Your task to perform on an android device: Add "razer deathadder" to the cart on bestbuy.com, then select checkout. Image 0: 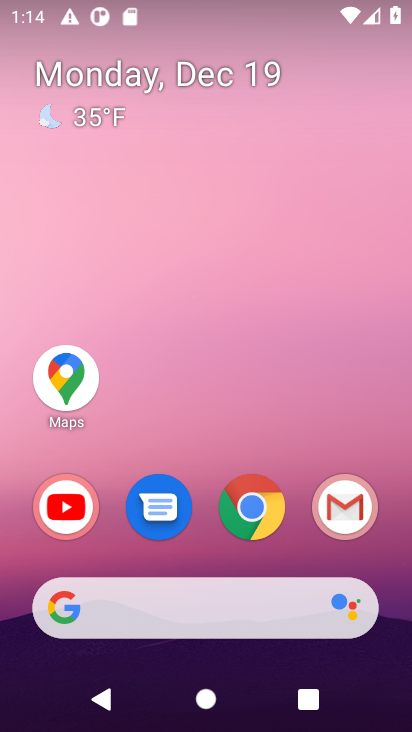
Step 0: click (251, 515)
Your task to perform on an android device: Add "razer deathadder" to the cart on bestbuy.com, then select checkout. Image 1: 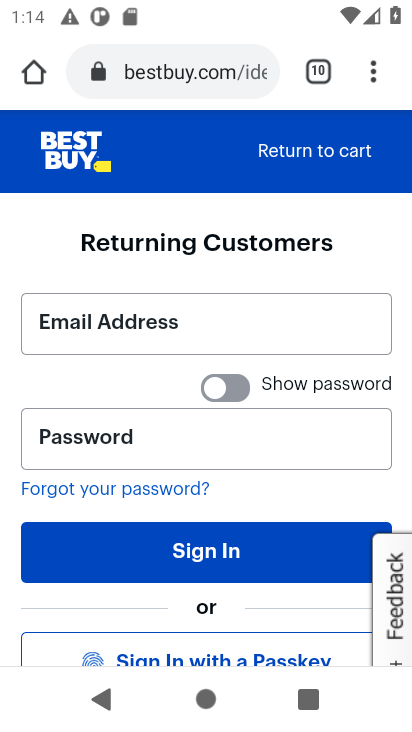
Step 1: click (193, 76)
Your task to perform on an android device: Add "razer deathadder" to the cart on bestbuy.com, then select checkout. Image 2: 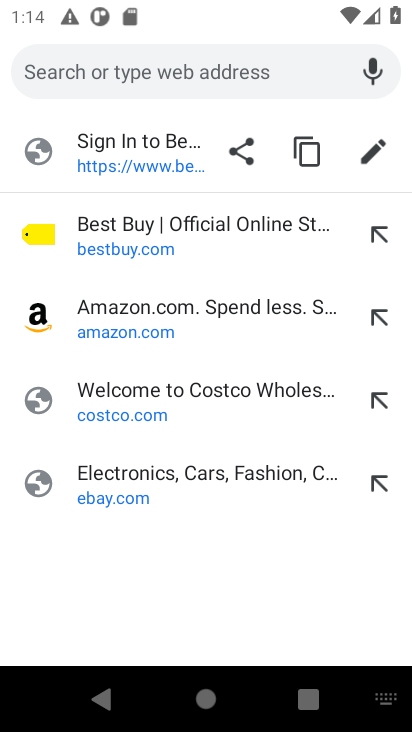
Step 2: click (111, 227)
Your task to perform on an android device: Add "razer deathadder" to the cart on bestbuy.com, then select checkout. Image 3: 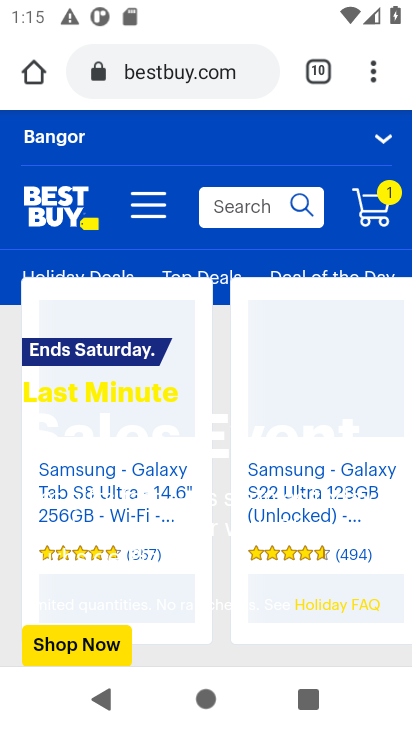
Step 3: click (225, 210)
Your task to perform on an android device: Add "razer deathadder" to the cart on bestbuy.com, then select checkout. Image 4: 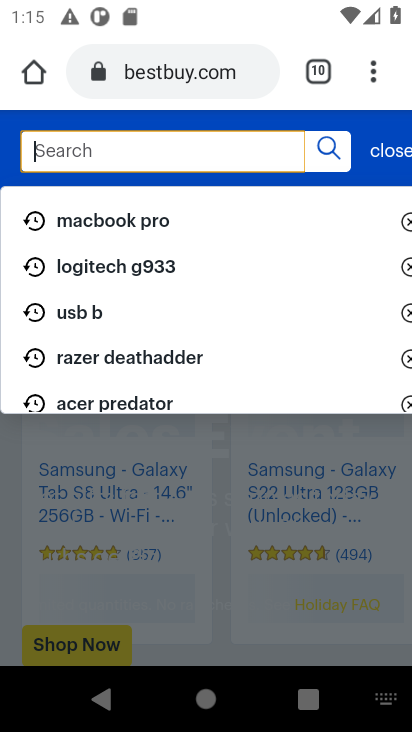
Step 4: type "razer deathadder"
Your task to perform on an android device: Add "razer deathadder" to the cart on bestbuy.com, then select checkout. Image 5: 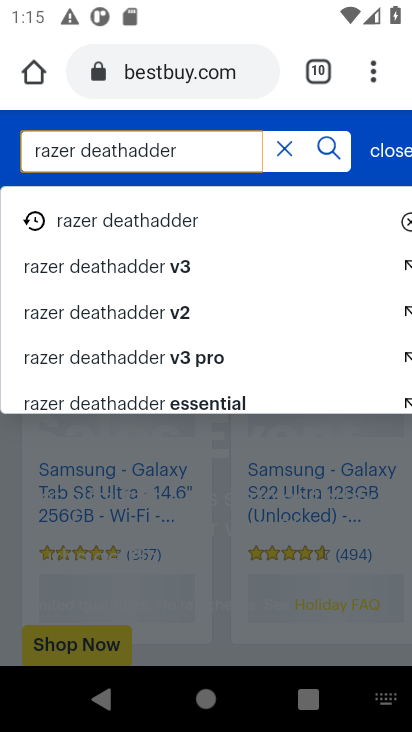
Step 5: click (167, 233)
Your task to perform on an android device: Add "razer deathadder" to the cart on bestbuy.com, then select checkout. Image 6: 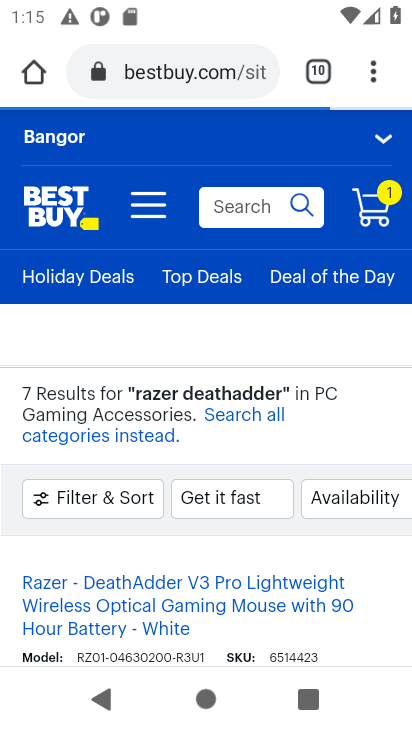
Step 6: drag from (164, 520) to (209, 288)
Your task to perform on an android device: Add "razer deathadder" to the cart on bestbuy.com, then select checkout. Image 7: 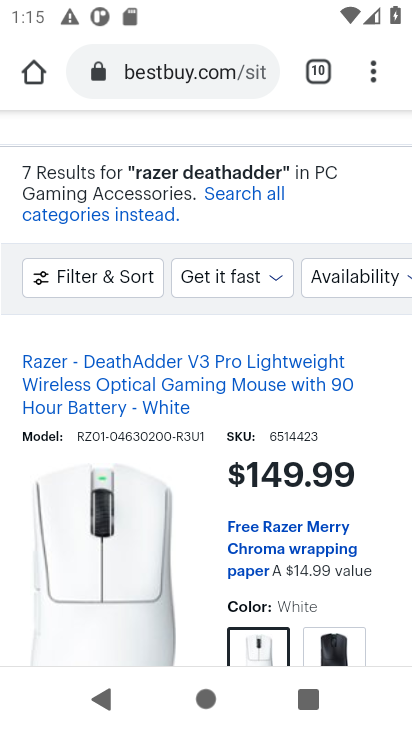
Step 7: click (125, 386)
Your task to perform on an android device: Add "razer deathadder" to the cart on bestbuy.com, then select checkout. Image 8: 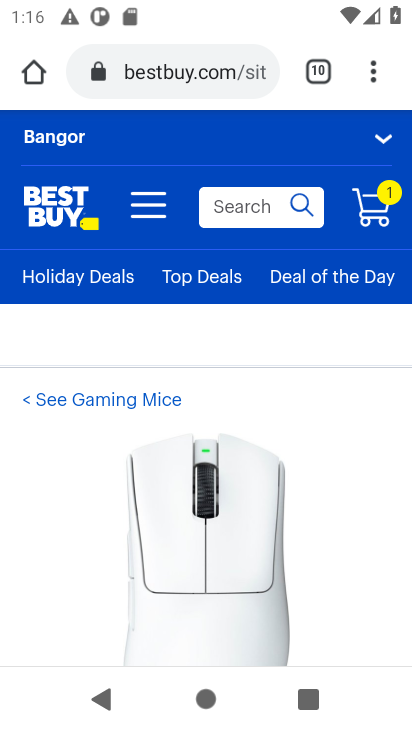
Step 8: drag from (146, 505) to (165, 345)
Your task to perform on an android device: Add "razer deathadder" to the cart on bestbuy.com, then select checkout. Image 9: 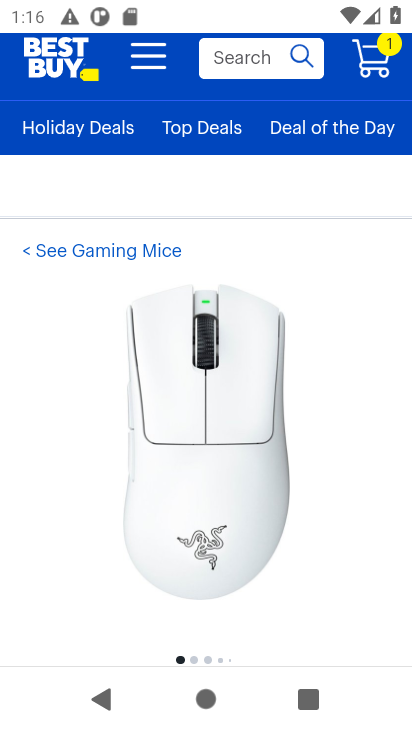
Step 9: drag from (164, 524) to (180, 205)
Your task to perform on an android device: Add "razer deathadder" to the cart on bestbuy.com, then select checkout. Image 10: 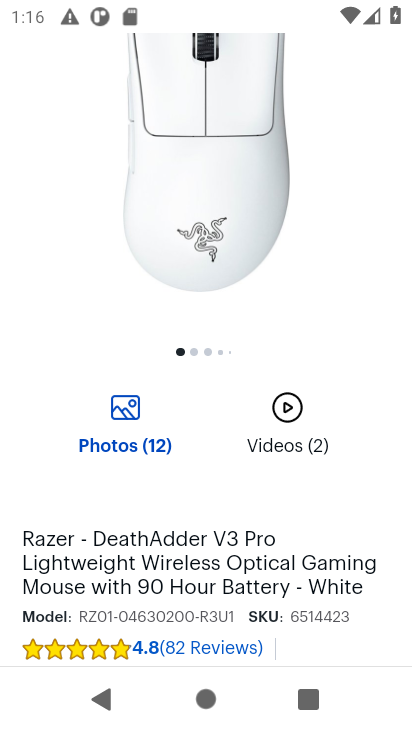
Step 10: drag from (167, 494) to (180, 202)
Your task to perform on an android device: Add "razer deathadder" to the cart on bestbuy.com, then select checkout. Image 11: 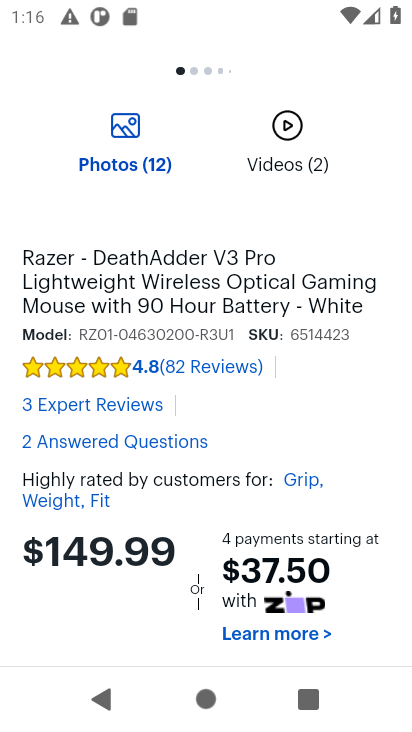
Step 11: drag from (191, 435) to (208, 142)
Your task to perform on an android device: Add "razer deathadder" to the cart on bestbuy.com, then select checkout. Image 12: 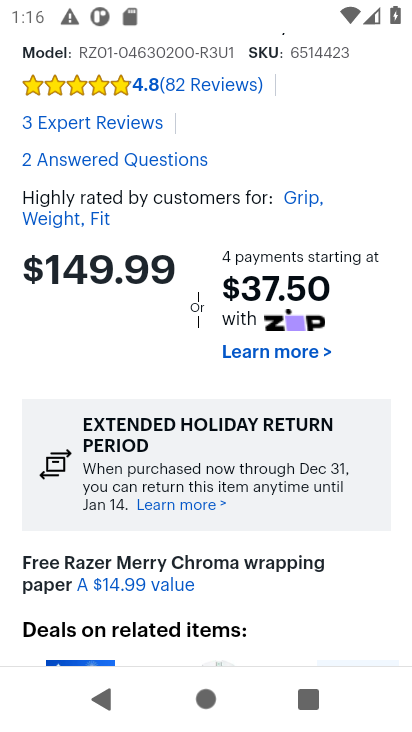
Step 12: drag from (214, 483) to (212, 171)
Your task to perform on an android device: Add "razer deathadder" to the cart on bestbuy.com, then select checkout. Image 13: 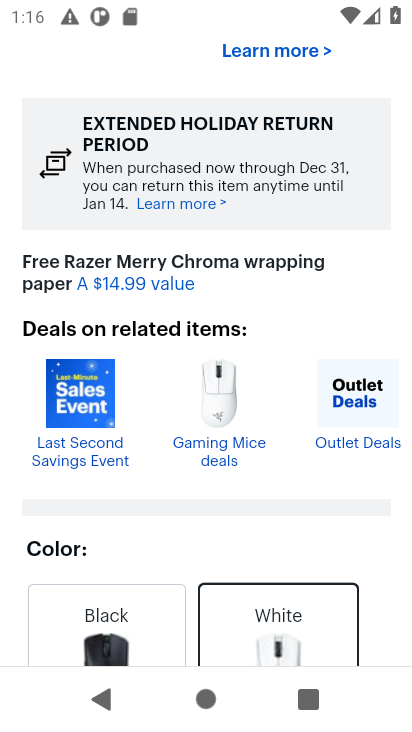
Step 13: drag from (203, 431) to (219, 160)
Your task to perform on an android device: Add "razer deathadder" to the cart on bestbuy.com, then select checkout. Image 14: 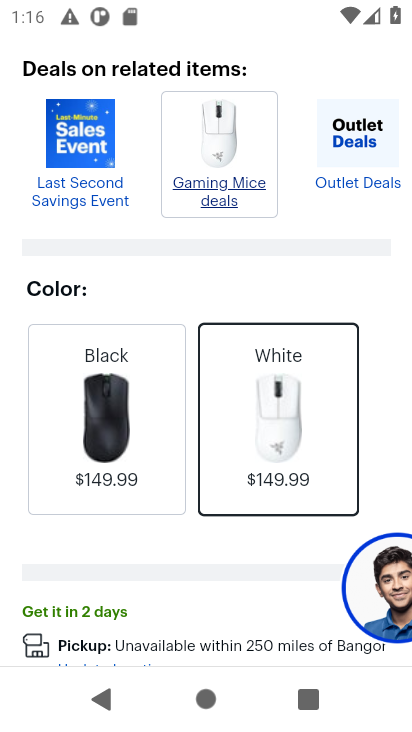
Step 14: drag from (191, 461) to (226, 172)
Your task to perform on an android device: Add "razer deathadder" to the cart on bestbuy.com, then select checkout. Image 15: 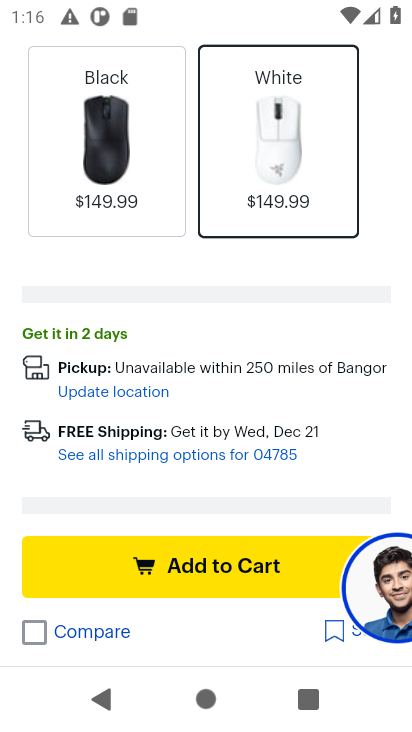
Step 15: click (192, 559)
Your task to perform on an android device: Add "razer deathadder" to the cart on bestbuy.com, then select checkout. Image 16: 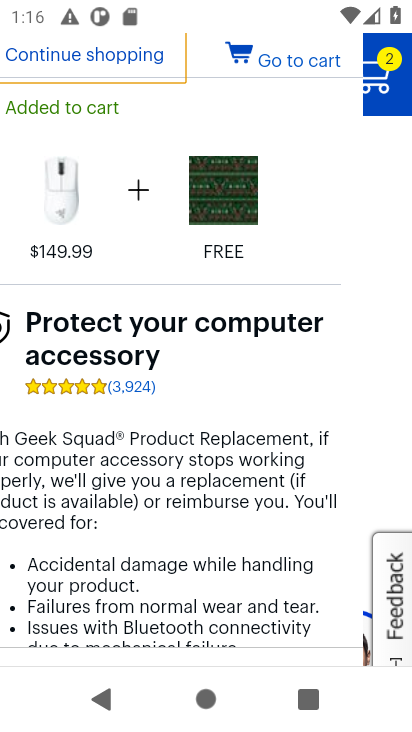
Step 16: click (286, 66)
Your task to perform on an android device: Add "razer deathadder" to the cart on bestbuy.com, then select checkout. Image 17: 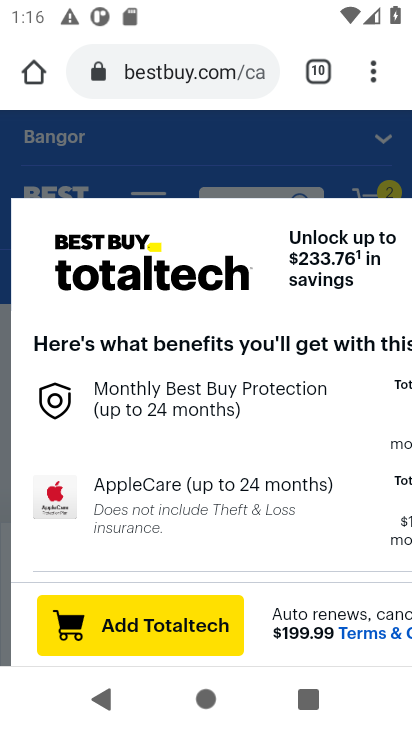
Step 17: click (284, 154)
Your task to perform on an android device: Add "razer deathadder" to the cart on bestbuy.com, then select checkout. Image 18: 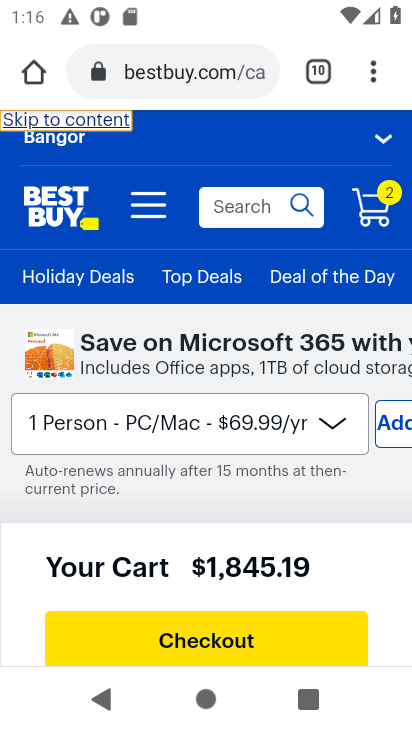
Step 18: click (192, 638)
Your task to perform on an android device: Add "razer deathadder" to the cart on bestbuy.com, then select checkout. Image 19: 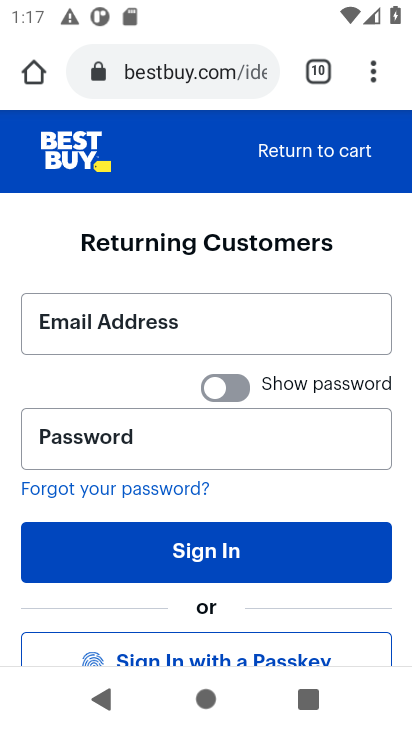
Step 19: task complete